Your task to perform on an android device: Open display settings Image 0: 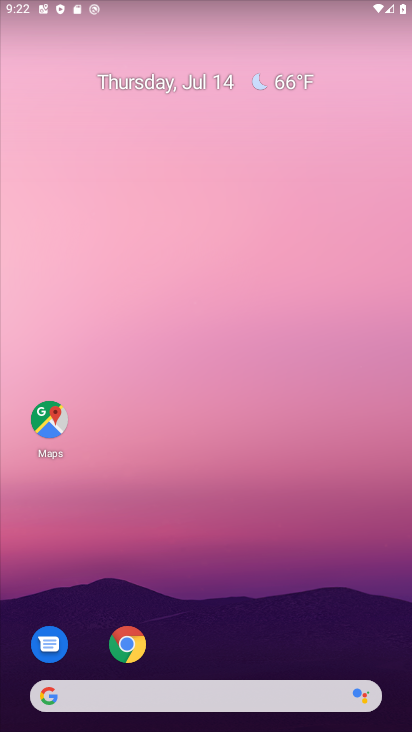
Step 0: click (185, 145)
Your task to perform on an android device: Open display settings Image 1: 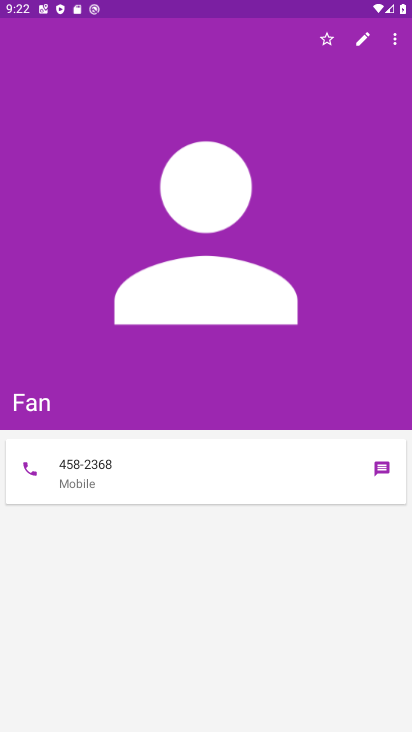
Step 1: press back button
Your task to perform on an android device: Open display settings Image 2: 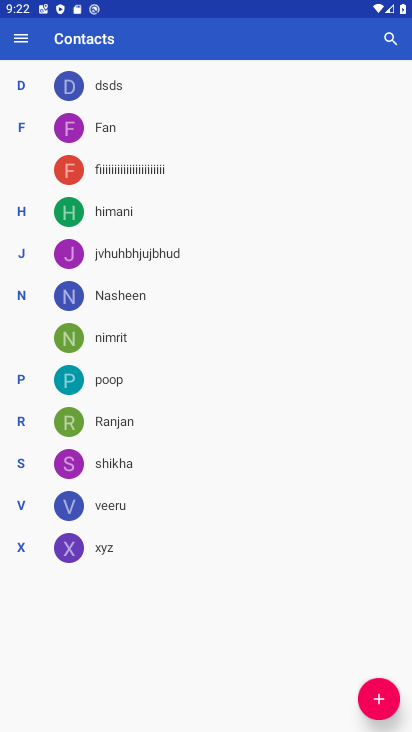
Step 2: press home button
Your task to perform on an android device: Open display settings Image 3: 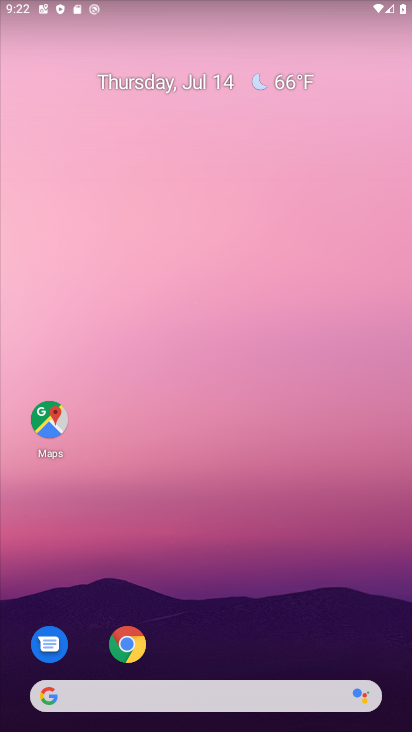
Step 3: drag from (263, 474) to (184, 150)
Your task to perform on an android device: Open display settings Image 4: 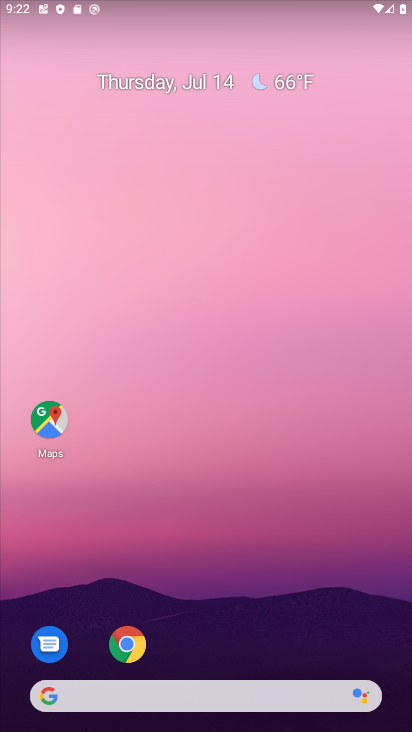
Step 4: drag from (261, 669) to (98, 102)
Your task to perform on an android device: Open display settings Image 5: 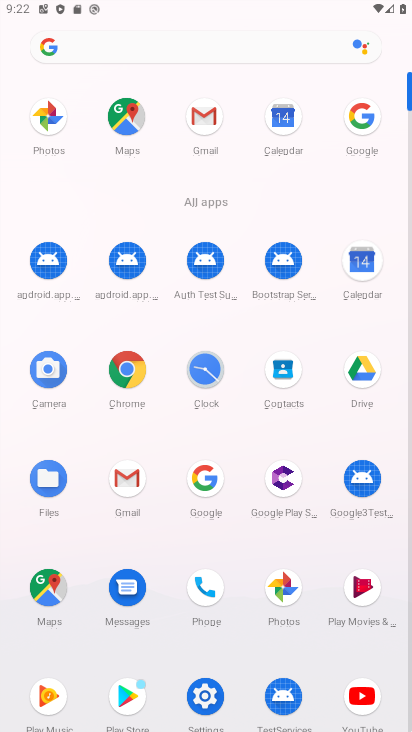
Step 5: click (214, 690)
Your task to perform on an android device: Open display settings Image 6: 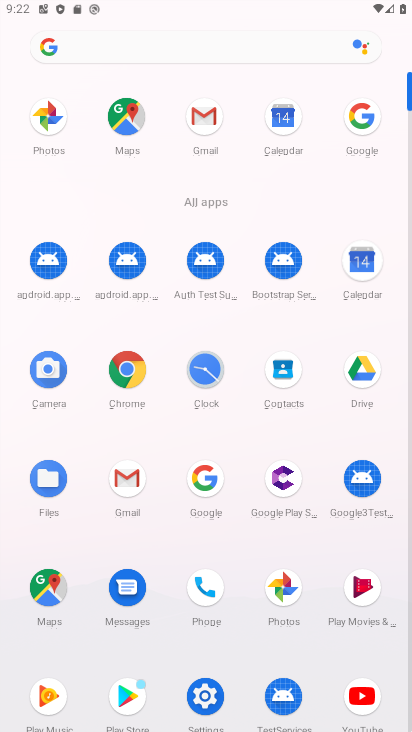
Step 6: click (214, 690)
Your task to perform on an android device: Open display settings Image 7: 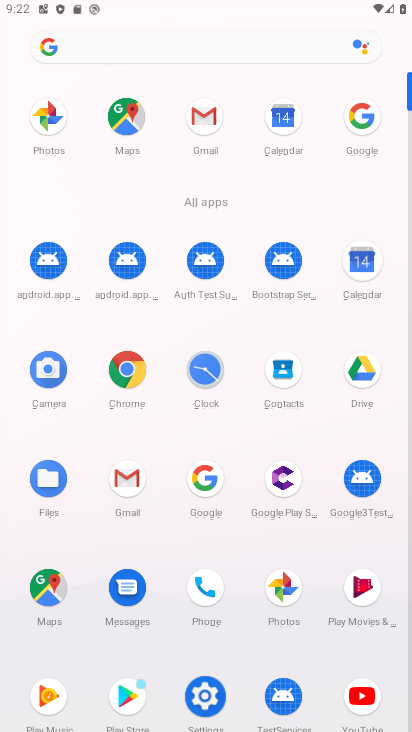
Step 7: click (215, 688)
Your task to perform on an android device: Open display settings Image 8: 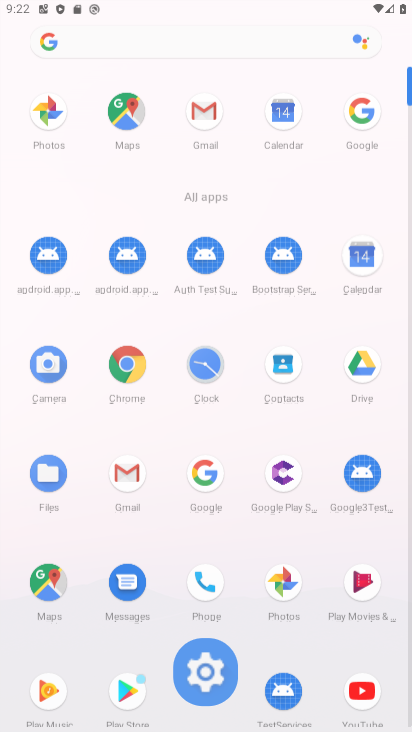
Step 8: click (215, 688)
Your task to perform on an android device: Open display settings Image 9: 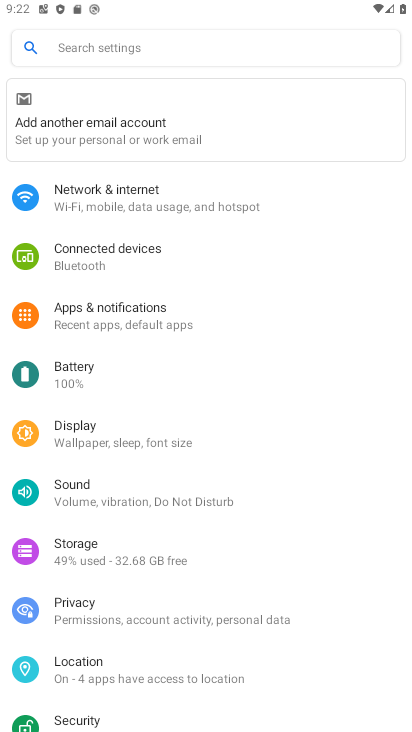
Step 9: click (66, 437)
Your task to perform on an android device: Open display settings Image 10: 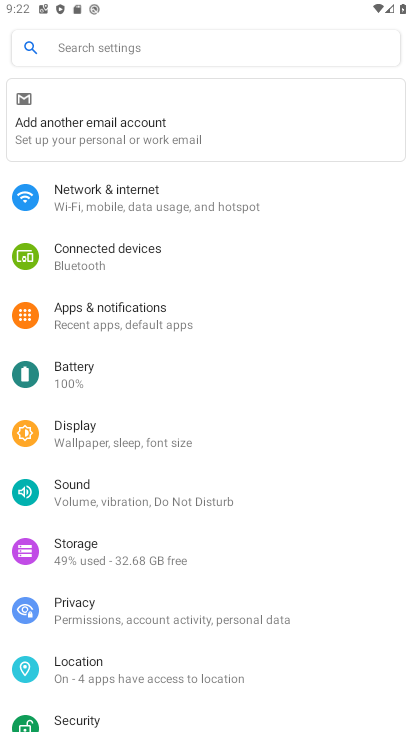
Step 10: click (75, 435)
Your task to perform on an android device: Open display settings Image 11: 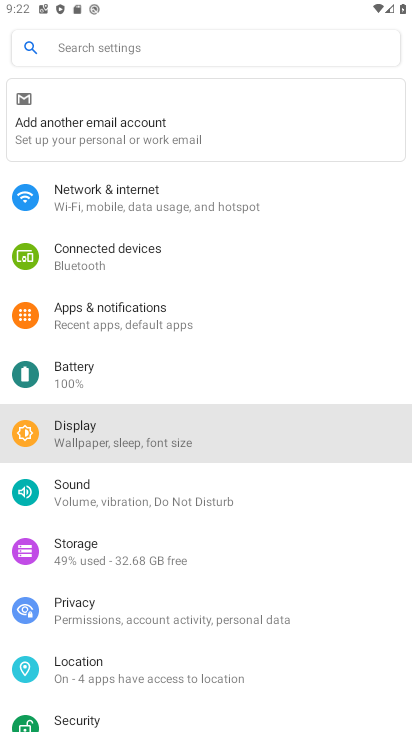
Step 11: click (78, 435)
Your task to perform on an android device: Open display settings Image 12: 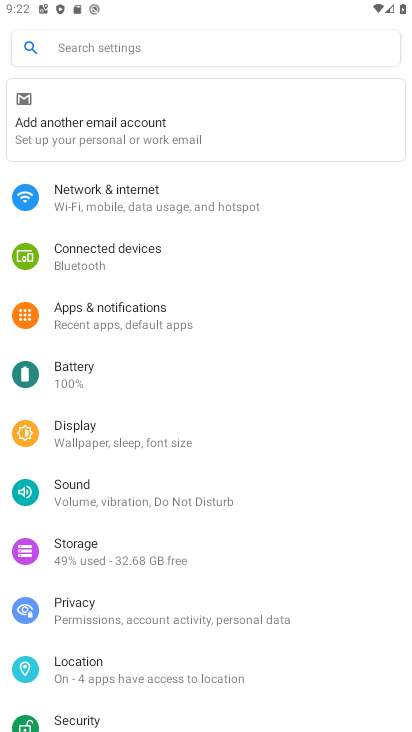
Step 12: click (79, 435)
Your task to perform on an android device: Open display settings Image 13: 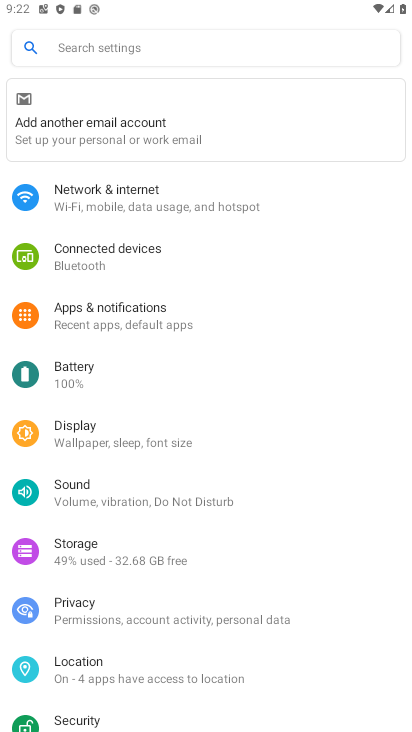
Step 13: click (79, 435)
Your task to perform on an android device: Open display settings Image 14: 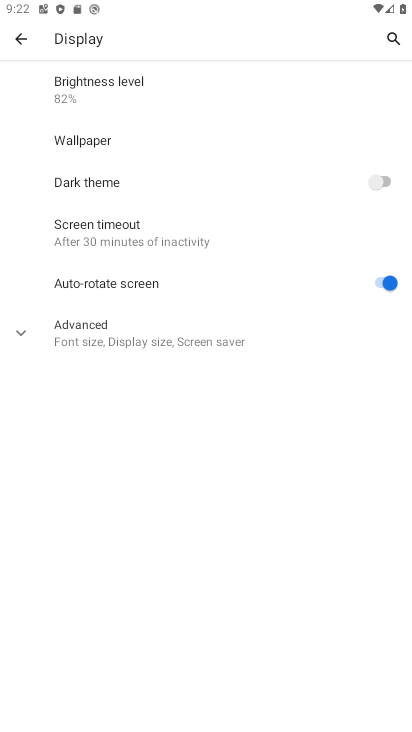
Step 14: task complete